Your task to perform on an android device: Search for pizza restaurants on Maps Image 0: 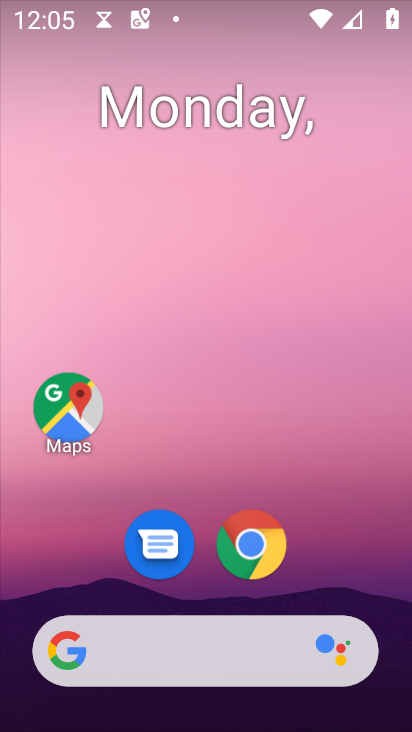
Step 0: click (66, 409)
Your task to perform on an android device: Search for pizza restaurants on Maps Image 1: 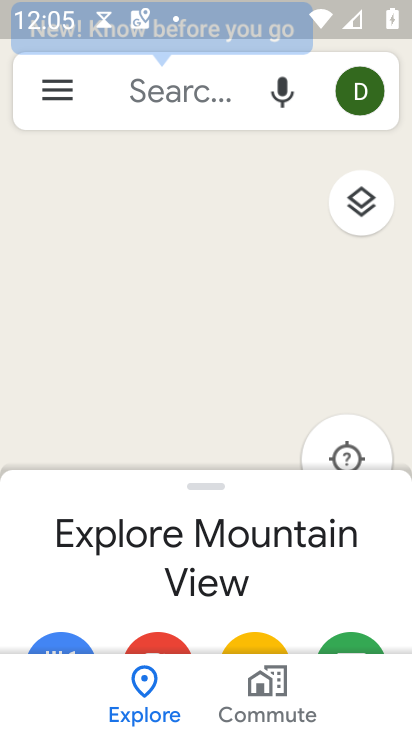
Step 1: click (168, 89)
Your task to perform on an android device: Search for pizza restaurants on Maps Image 2: 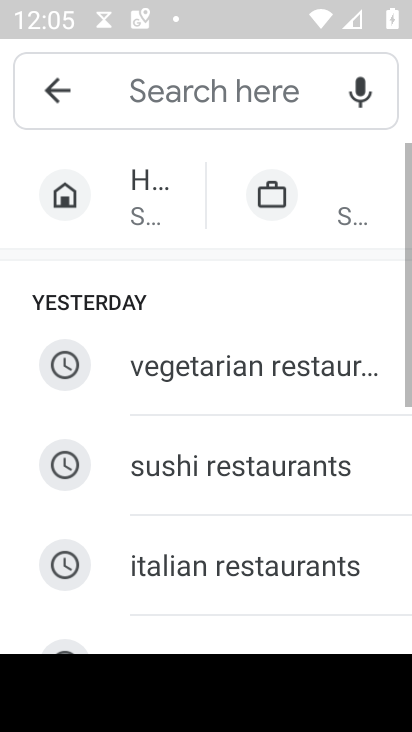
Step 2: drag from (172, 566) to (261, 334)
Your task to perform on an android device: Search for pizza restaurants on Maps Image 3: 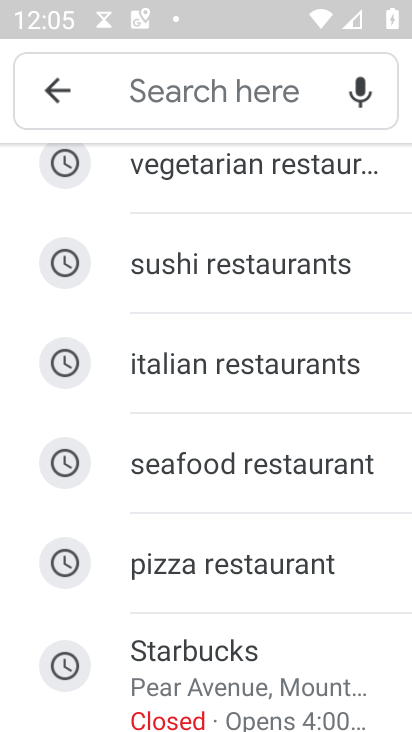
Step 3: click (295, 547)
Your task to perform on an android device: Search for pizza restaurants on Maps Image 4: 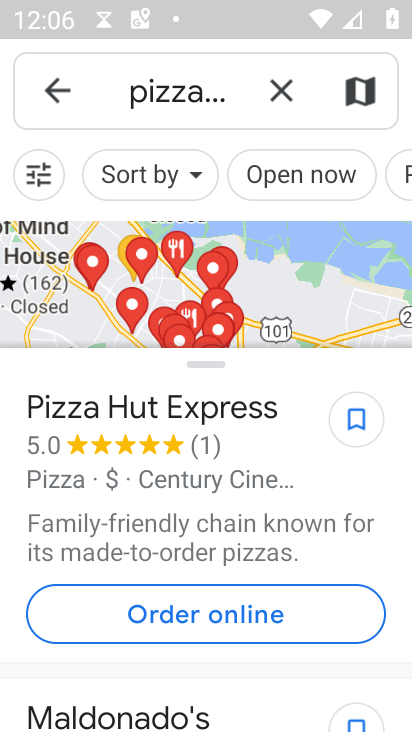
Step 4: task complete